Your task to perform on an android device: change notifications settings Image 0: 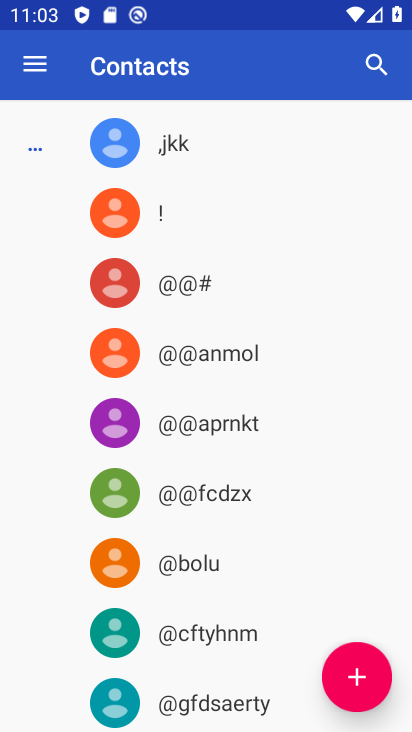
Step 0: press home button
Your task to perform on an android device: change notifications settings Image 1: 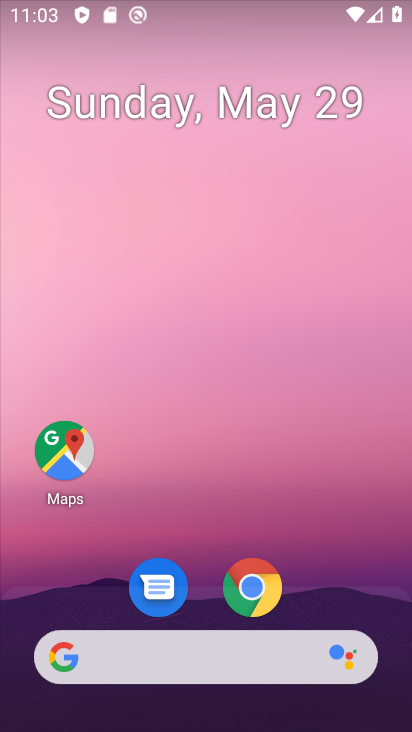
Step 1: drag from (329, 608) to (229, 237)
Your task to perform on an android device: change notifications settings Image 2: 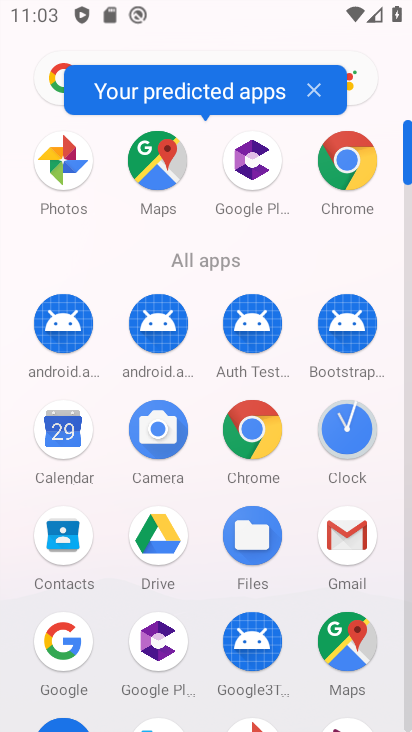
Step 2: drag from (290, 497) to (329, 178)
Your task to perform on an android device: change notifications settings Image 3: 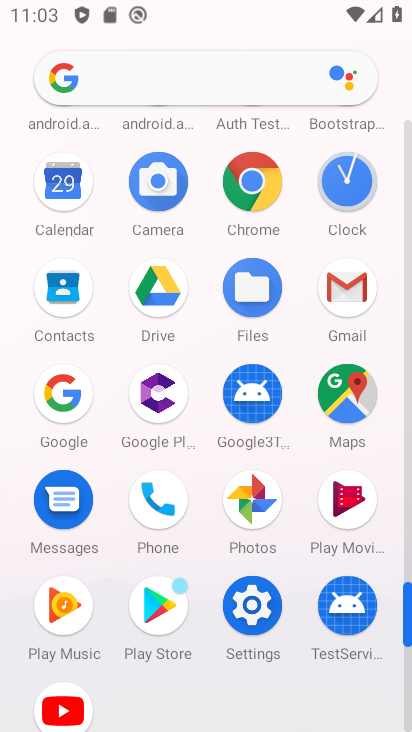
Step 3: click (240, 606)
Your task to perform on an android device: change notifications settings Image 4: 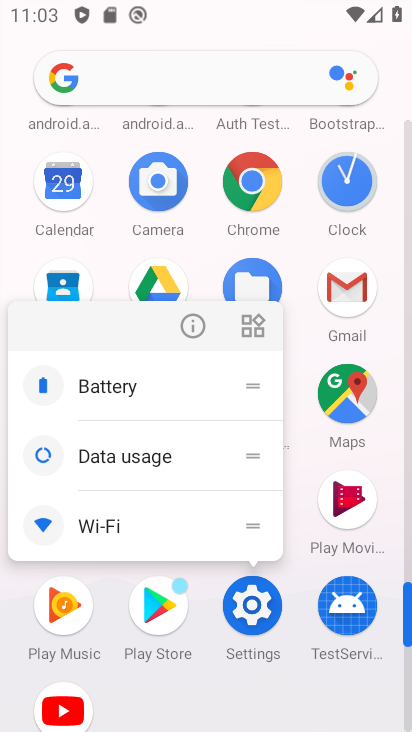
Step 4: click (258, 609)
Your task to perform on an android device: change notifications settings Image 5: 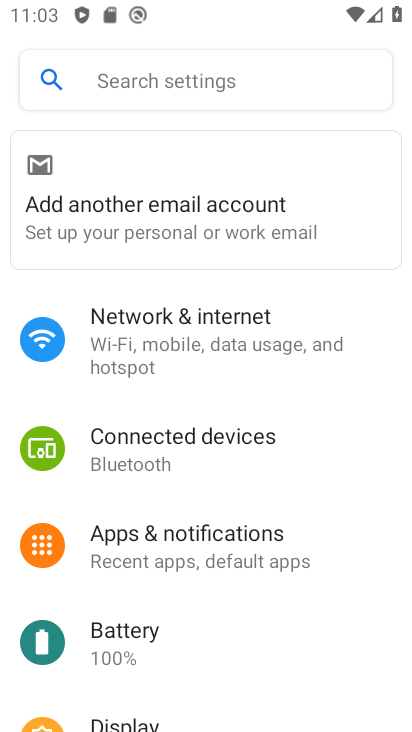
Step 5: click (236, 545)
Your task to perform on an android device: change notifications settings Image 6: 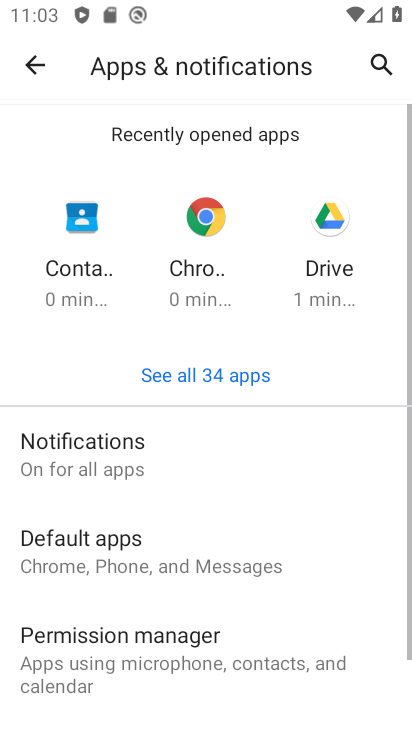
Step 6: click (116, 455)
Your task to perform on an android device: change notifications settings Image 7: 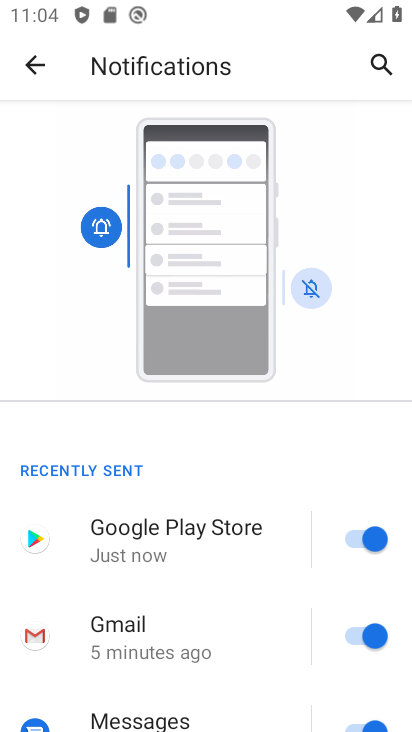
Step 7: task complete